Your task to perform on an android device: Go to Amazon Image 0: 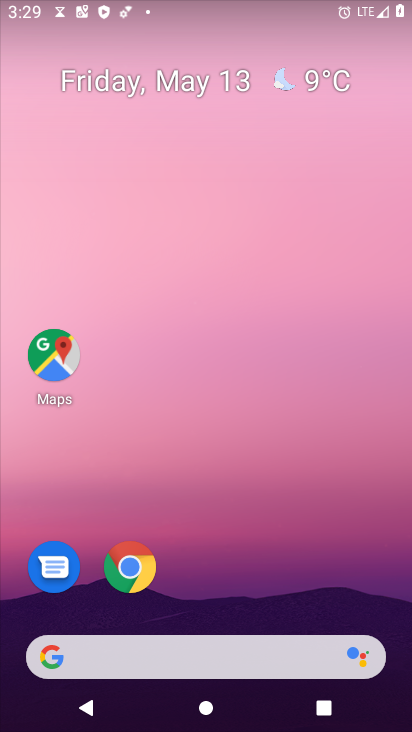
Step 0: click (130, 566)
Your task to perform on an android device: Go to Amazon Image 1: 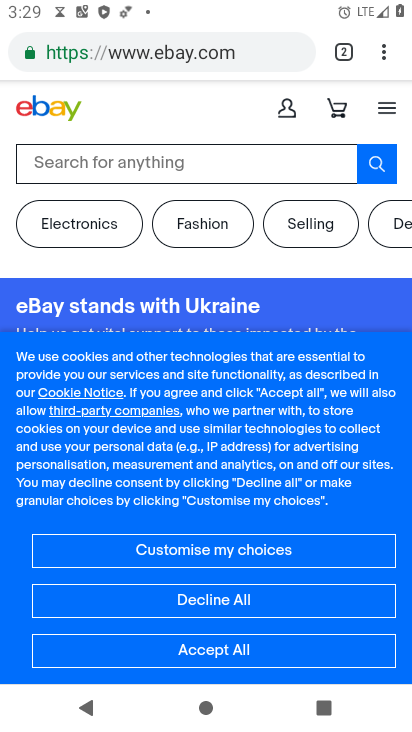
Step 1: click (119, 53)
Your task to perform on an android device: Go to Amazon Image 2: 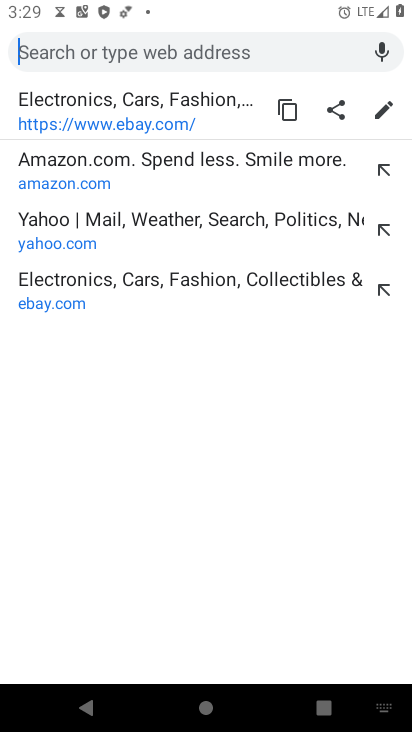
Step 2: click (70, 176)
Your task to perform on an android device: Go to Amazon Image 3: 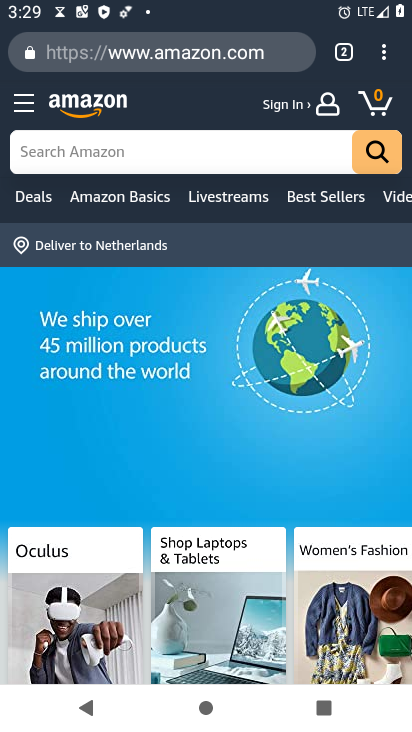
Step 3: task complete